Your task to perform on an android device: Open calendar and show me the fourth week of next month Image 0: 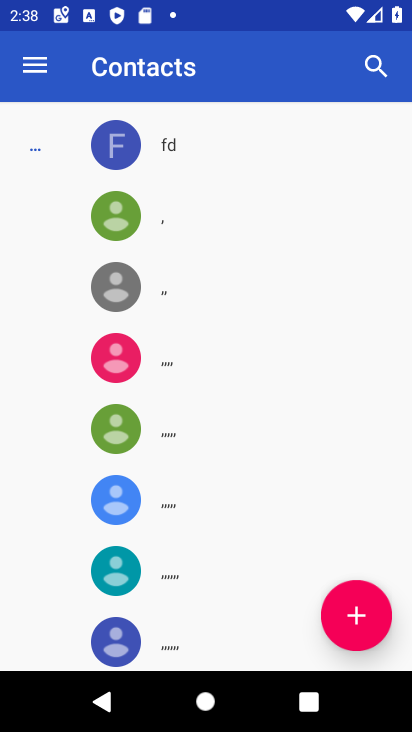
Step 0: press home button
Your task to perform on an android device: Open calendar and show me the fourth week of next month Image 1: 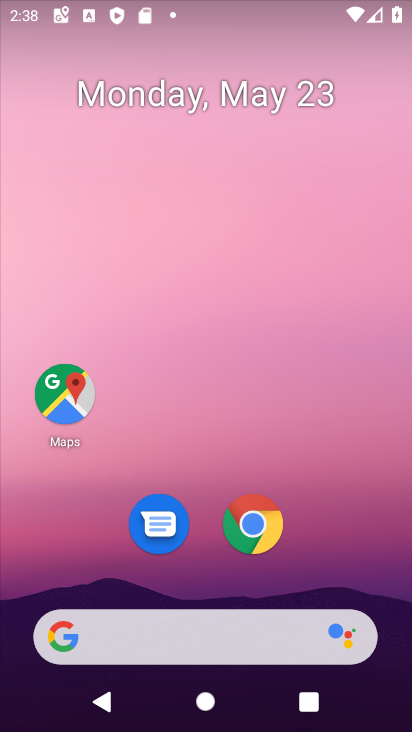
Step 1: drag from (208, 446) to (279, 5)
Your task to perform on an android device: Open calendar and show me the fourth week of next month Image 2: 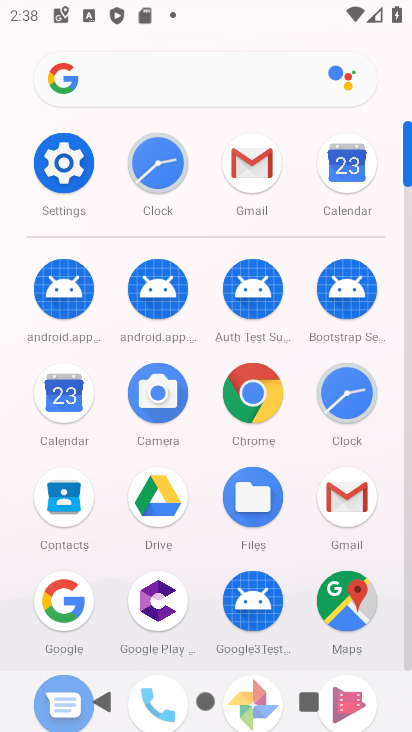
Step 2: click (345, 161)
Your task to perform on an android device: Open calendar and show me the fourth week of next month Image 3: 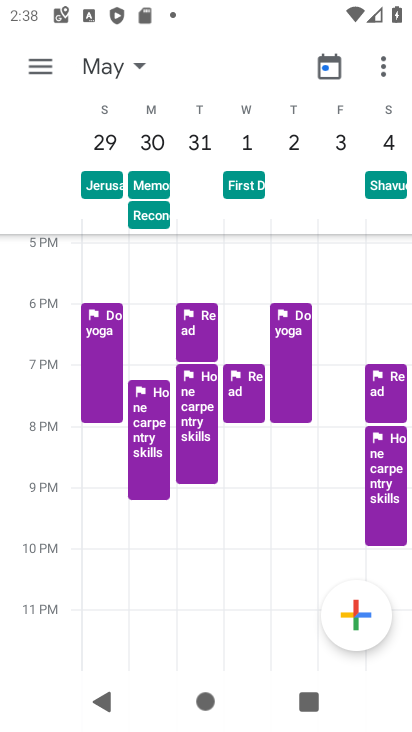
Step 3: task complete